Your task to perform on an android device: turn off javascript in the chrome app Image 0: 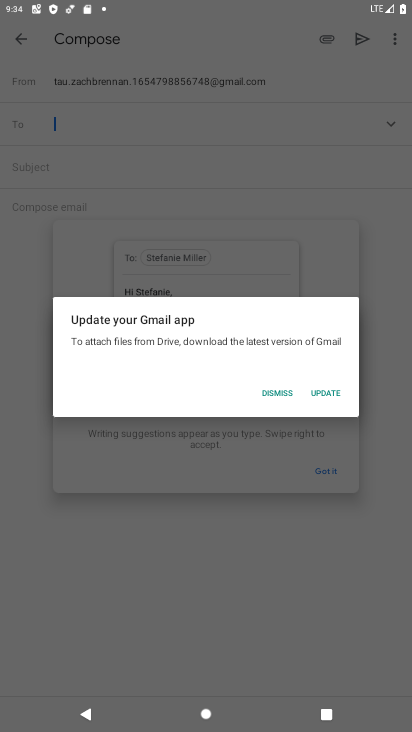
Step 0: press home button
Your task to perform on an android device: turn off javascript in the chrome app Image 1: 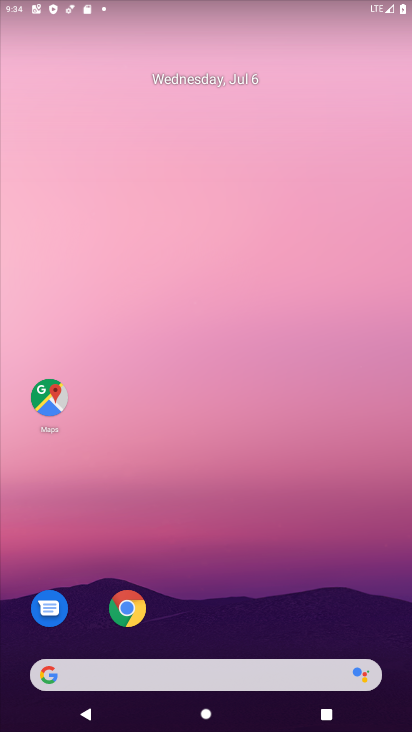
Step 1: click (126, 612)
Your task to perform on an android device: turn off javascript in the chrome app Image 2: 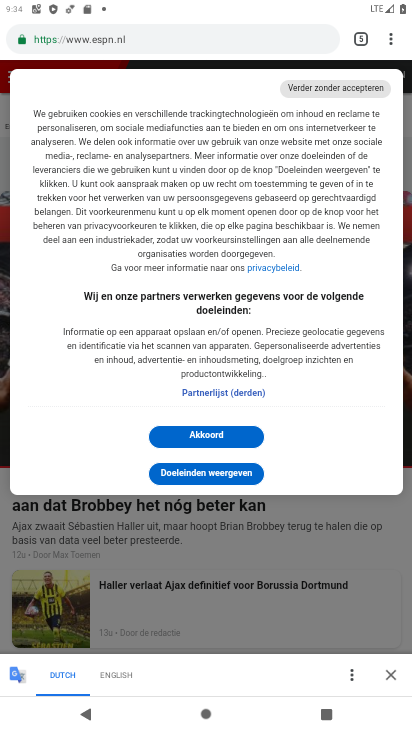
Step 2: click (389, 41)
Your task to perform on an android device: turn off javascript in the chrome app Image 3: 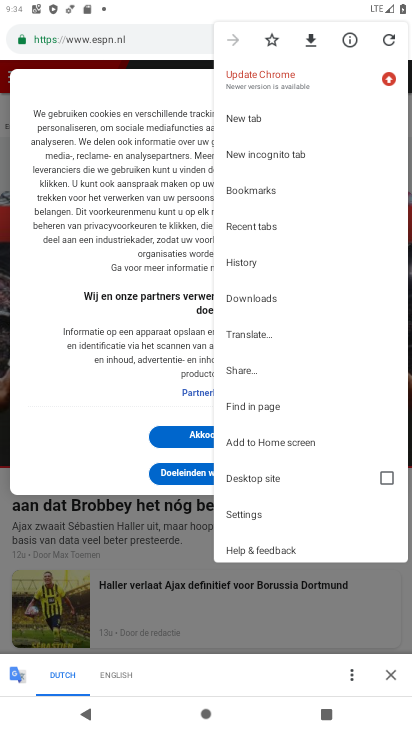
Step 3: click (245, 507)
Your task to perform on an android device: turn off javascript in the chrome app Image 4: 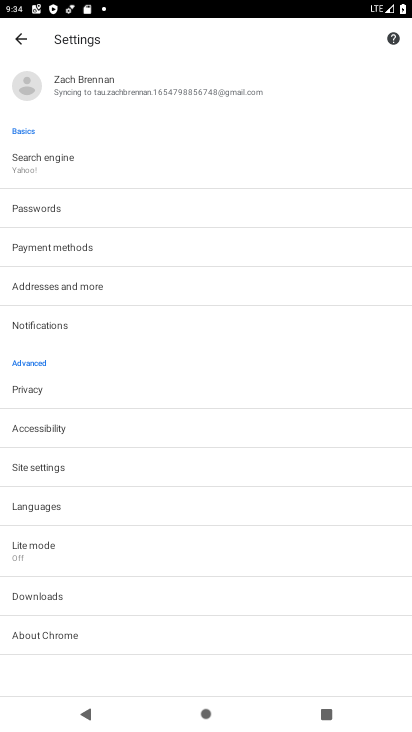
Step 4: drag from (100, 559) to (97, 424)
Your task to perform on an android device: turn off javascript in the chrome app Image 5: 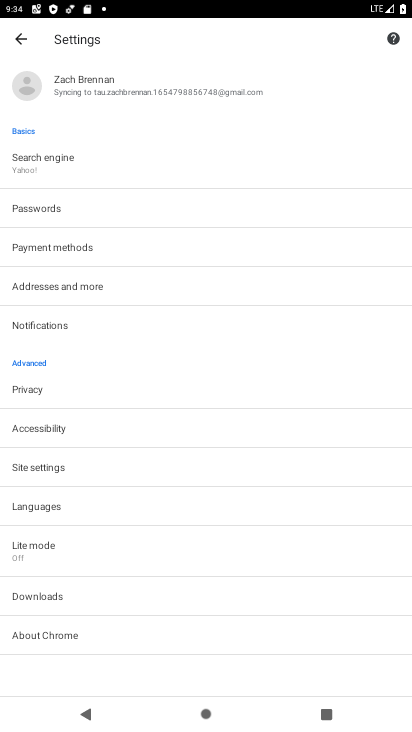
Step 5: click (29, 467)
Your task to perform on an android device: turn off javascript in the chrome app Image 6: 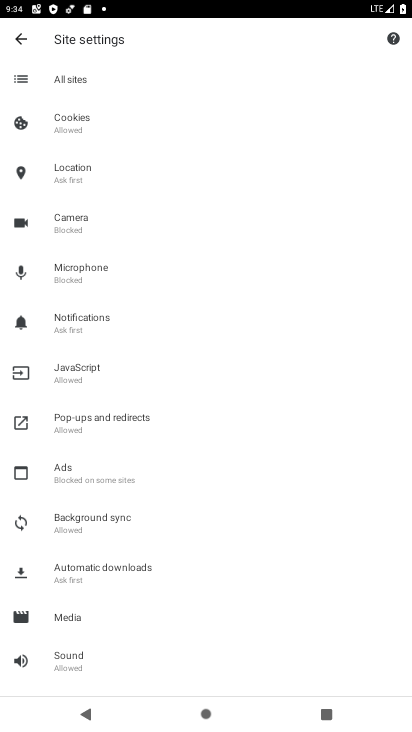
Step 6: click (71, 374)
Your task to perform on an android device: turn off javascript in the chrome app Image 7: 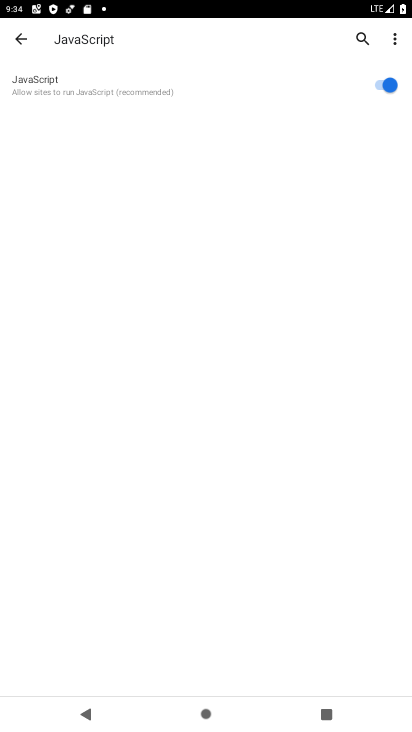
Step 7: click (388, 79)
Your task to perform on an android device: turn off javascript in the chrome app Image 8: 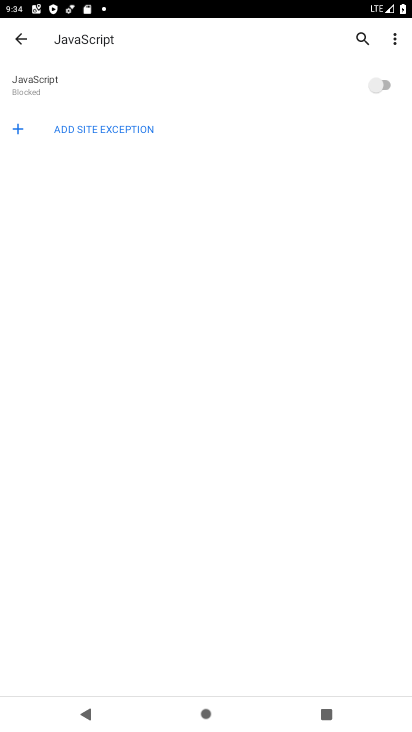
Step 8: task complete